Your task to perform on an android device: Go to Google maps Image 0: 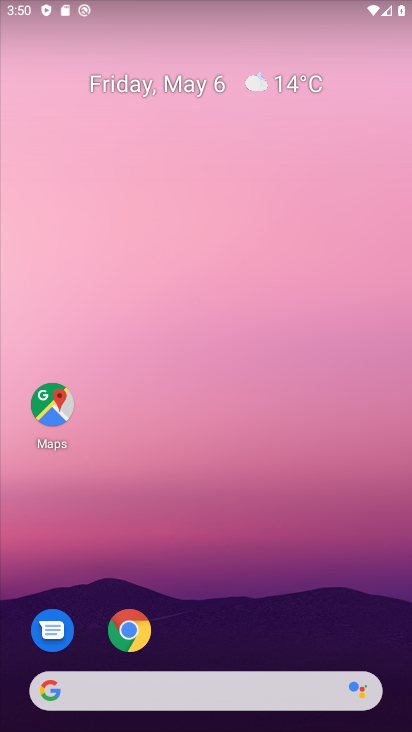
Step 0: drag from (311, 620) to (134, 0)
Your task to perform on an android device: Go to Google maps Image 1: 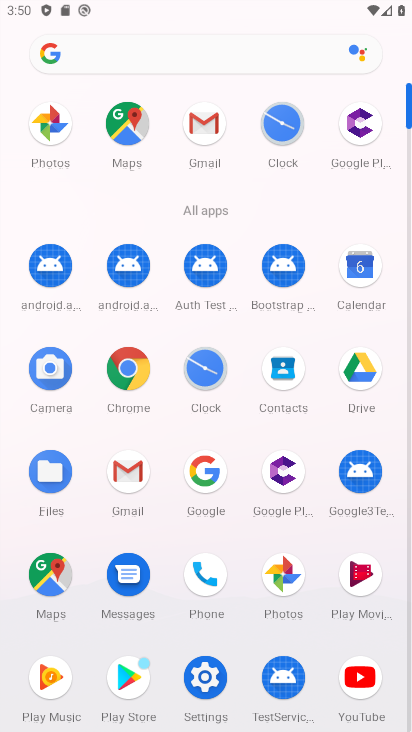
Step 1: click (407, 648)
Your task to perform on an android device: Go to Google maps Image 2: 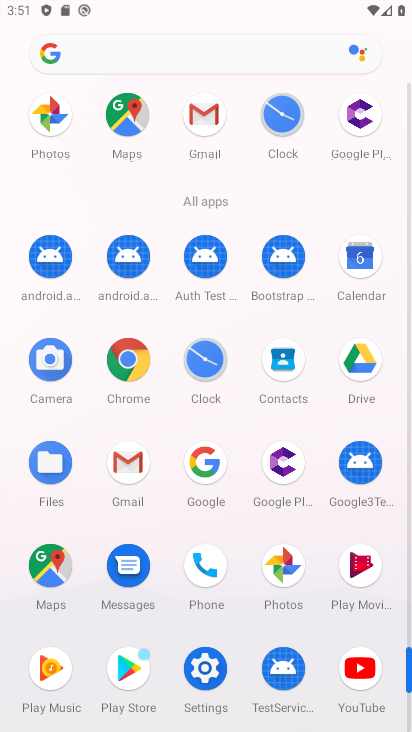
Step 2: click (127, 130)
Your task to perform on an android device: Go to Google maps Image 3: 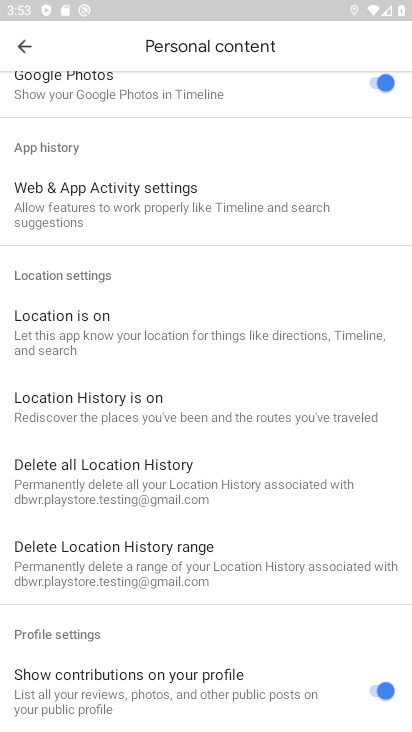
Step 3: task complete